Your task to perform on an android device: turn on priority inbox in the gmail app Image 0: 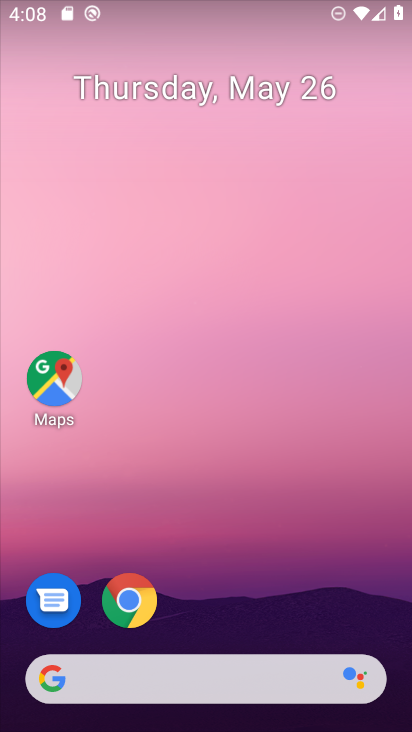
Step 0: drag from (247, 532) to (188, 3)
Your task to perform on an android device: turn on priority inbox in the gmail app Image 1: 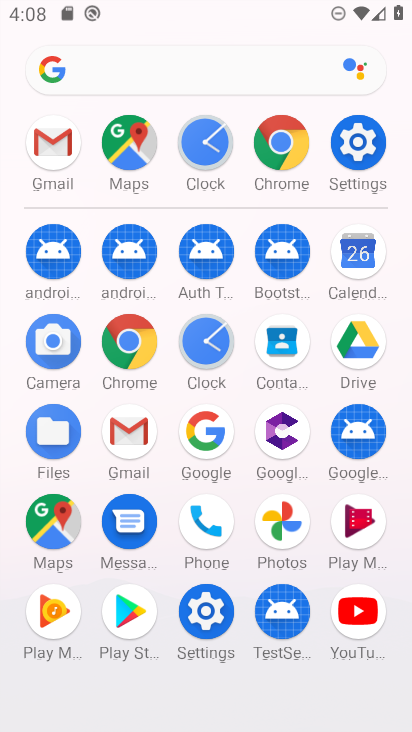
Step 1: drag from (19, 549) to (22, 251)
Your task to perform on an android device: turn on priority inbox in the gmail app Image 2: 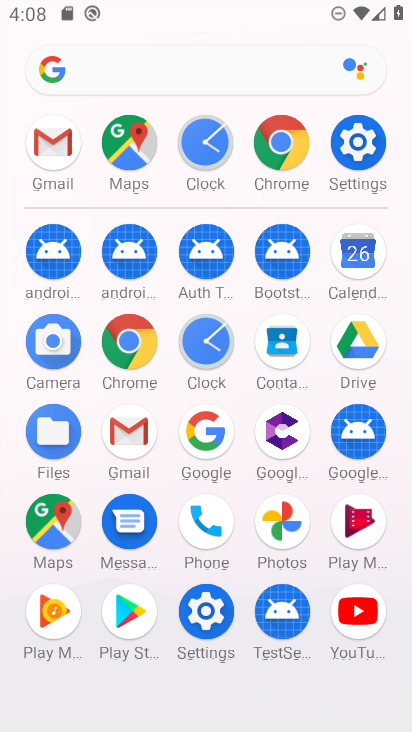
Step 2: click (130, 422)
Your task to perform on an android device: turn on priority inbox in the gmail app Image 3: 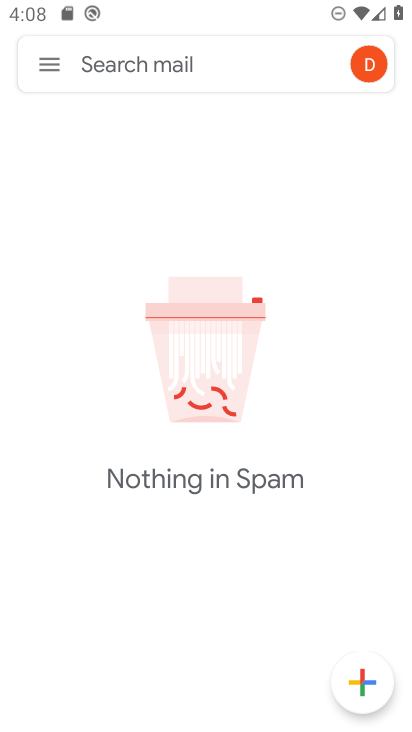
Step 3: click (66, 65)
Your task to perform on an android device: turn on priority inbox in the gmail app Image 4: 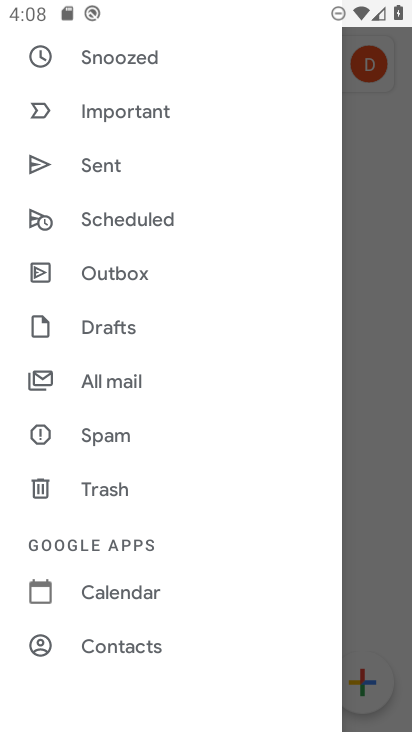
Step 4: drag from (189, 601) to (201, 198)
Your task to perform on an android device: turn on priority inbox in the gmail app Image 5: 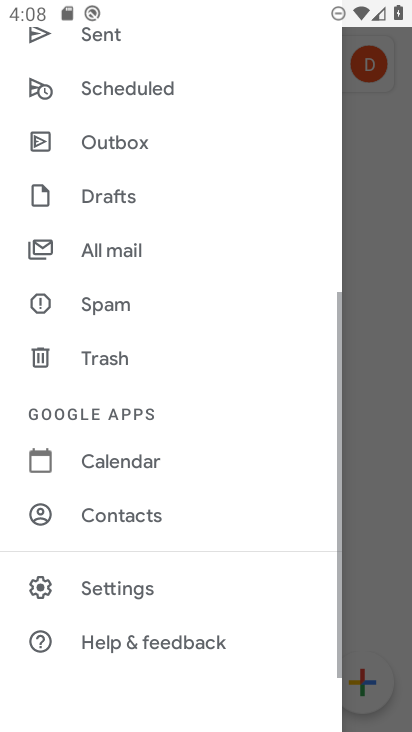
Step 5: click (138, 576)
Your task to perform on an android device: turn on priority inbox in the gmail app Image 6: 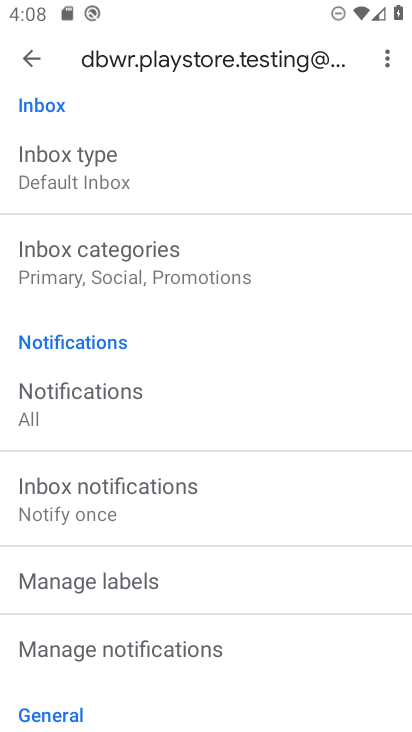
Step 6: drag from (190, 595) to (216, 182)
Your task to perform on an android device: turn on priority inbox in the gmail app Image 7: 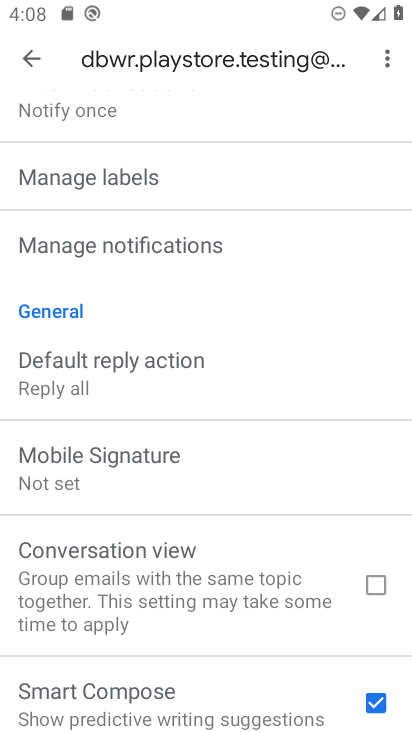
Step 7: click (169, 234)
Your task to perform on an android device: turn on priority inbox in the gmail app Image 8: 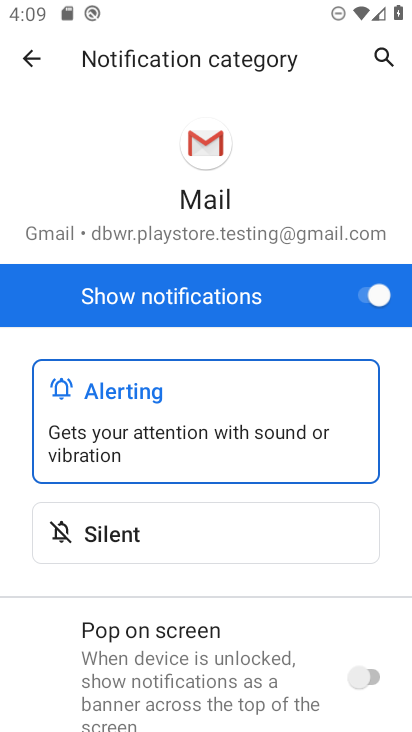
Step 8: drag from (237, 678) to (230, 205)
Your task to perform on an android device: turn on priority inbox in the gmail app Image 9: 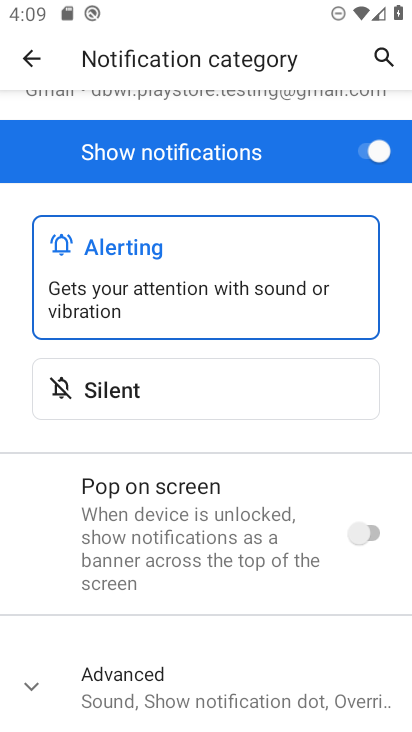
Step 9: click (125, 666)
Your task to perform on an android device: turn on priority inbox in the gmail app Image 10: 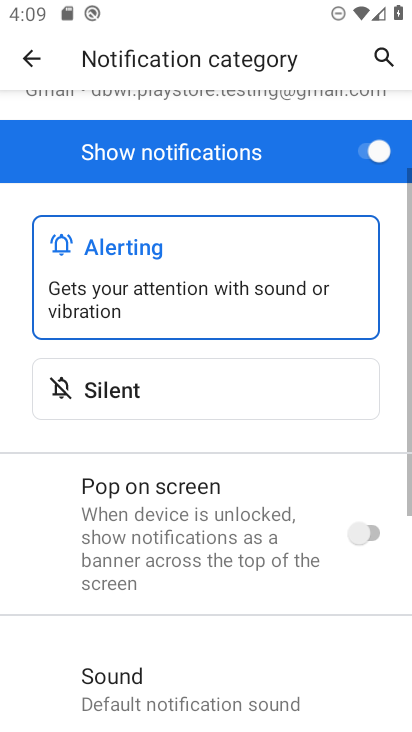
Step 10: drag from (254, 659) to (233, 228)
Your task to perform on an android device: turn on priority inbox in the gmail app Image 11: 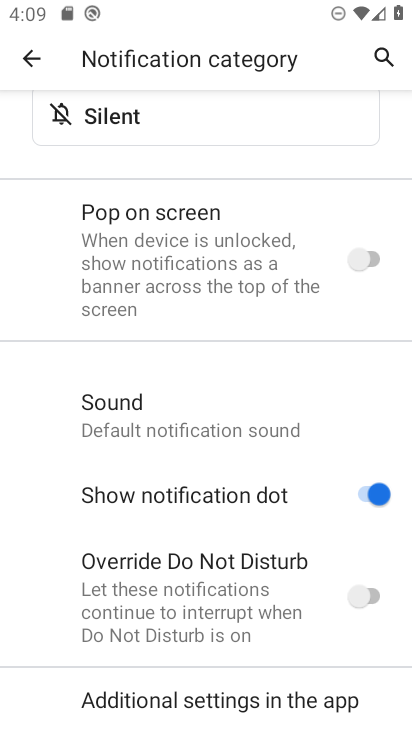
Step 11: drag from (234, 628) to (257, 171)
Your task to perform on an android device: turn on priority inbox in the gmail app Image 12: 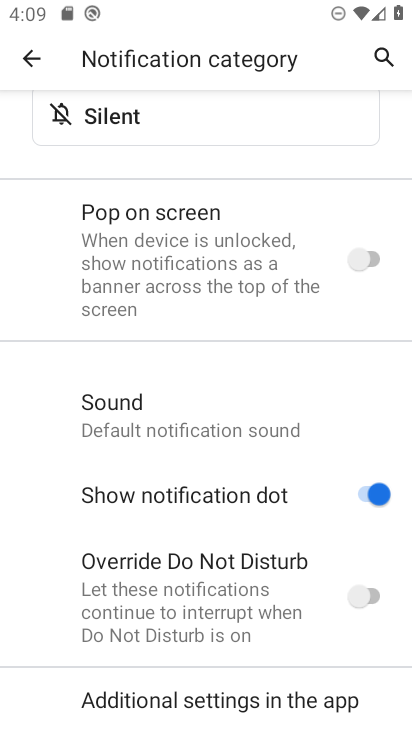
Step 12: drag from (225, 274) to (216, 666)
Your task to perform on an android device: turn on priority inbox in the gmail app Image 13: 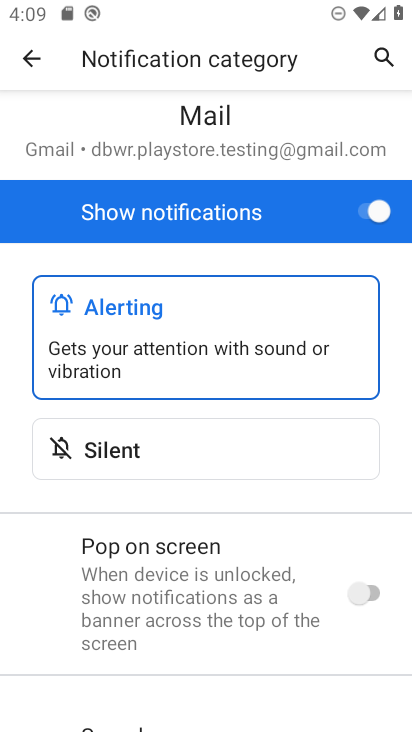
Step 13: drag from (218, 218) to (215, 631)
Your task to perform on an android device: turn on priority inbox in the gmail app Image 14: 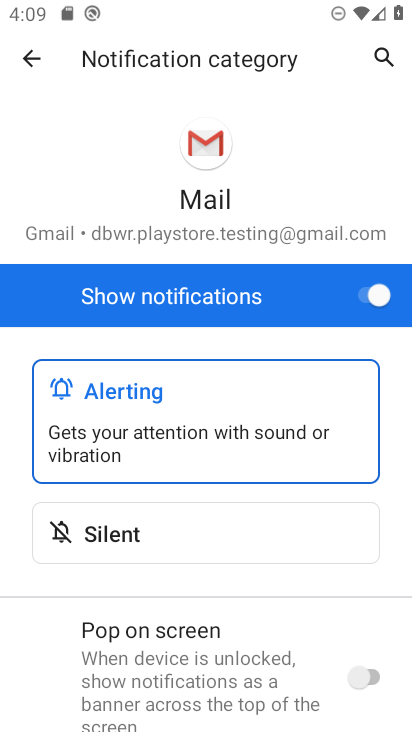
Step 14: drag from (242, 627) to (242, 211)
Your task to perform on an android device: turn on priority inbox in the gmail app Image 15: 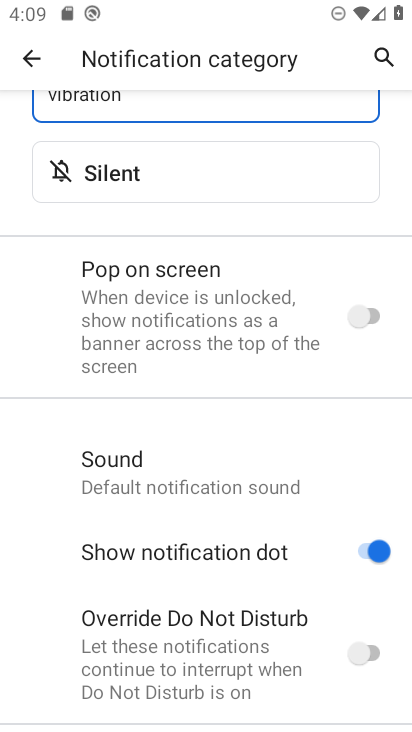
Step 15: drag from (250, 631) to (249, 317)
Your task to perform on an android device: turn on priority inbox in the gmail app Image 16: 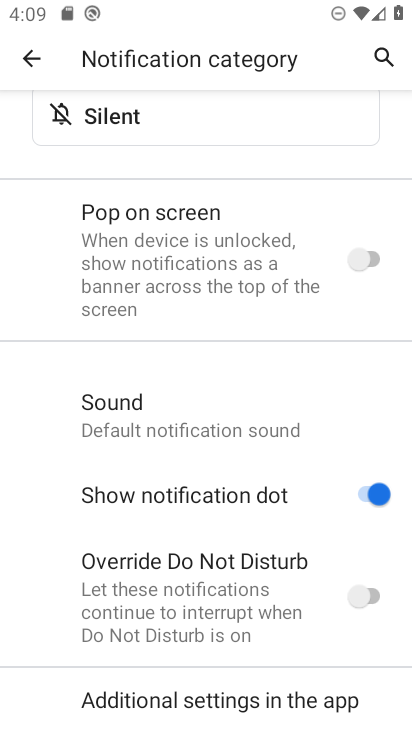
Step 16: drag from (223, 605) to (202, 279)
Your task to perform on an android device: turn on priority inbox in the gmail app Image 17: 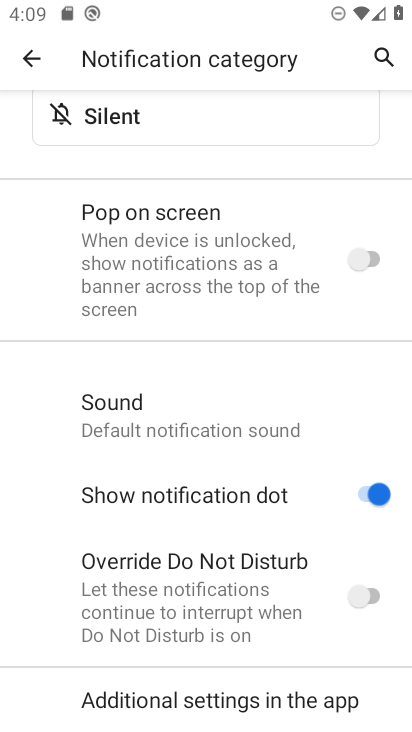
Step 17: drag from (248, 641) to (225, 274)
Your task to perform on an android device: turn on priority inbox in the gmail app Image 18: 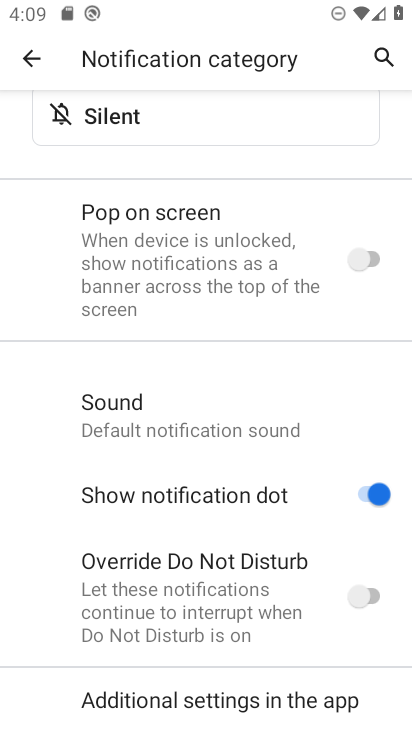
Step 18: drag from (216, 291) to (179, 711)
Your task to perform on an android device: turn on priority inbox in the gmail app Image 19: 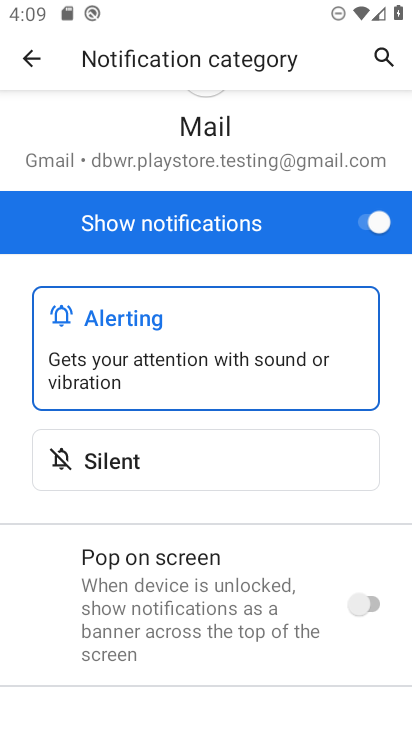
Step 19: drag from (245, 242) to (252, 651)
Your task to perform on an android device: turn on priority inbox in the gmail app Image 20: 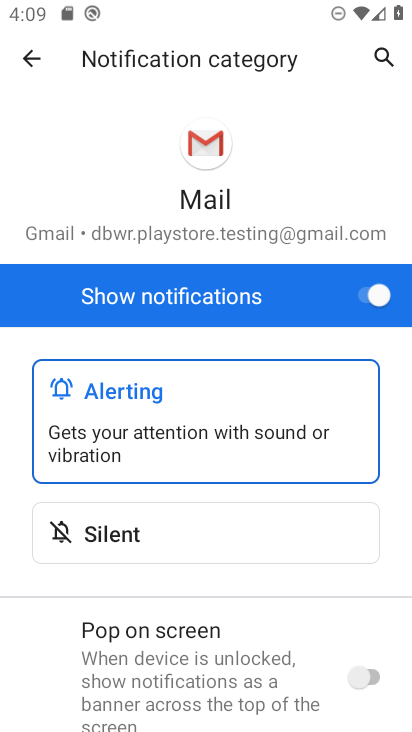
Step 20: click (33, 53)
Your task to perform on an android device: turn on priority inbox in the gmail app Image 21: 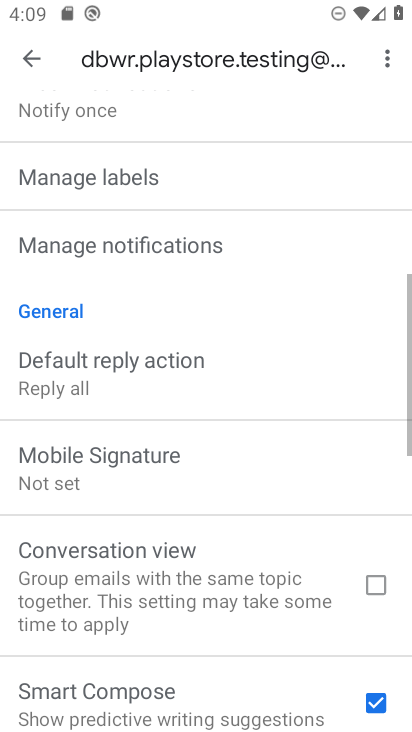
Step 21: drag from (223, 220) to (289, 615)
Your task to perform on an android device: turn on priority inbox in the gmail app Image 22: 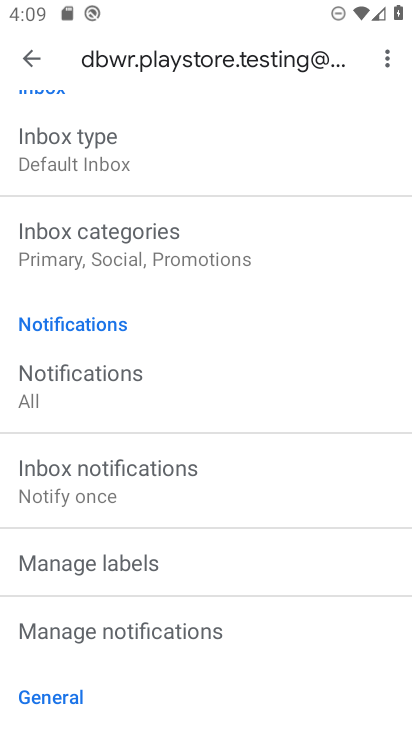
Step 22: click (151, 152)
Your task to perform on an android device: turn on priority inbox in the gmail app Image 23: 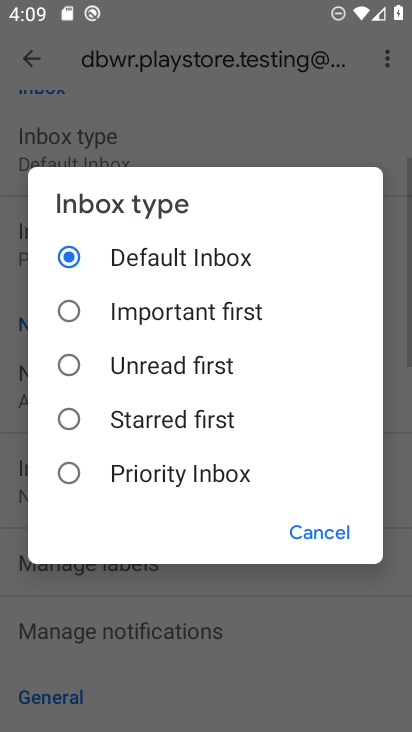
Step 23: click (174, 479)
Your task to perform on an android device: turn on priority inbox in the gmail app Image 24: 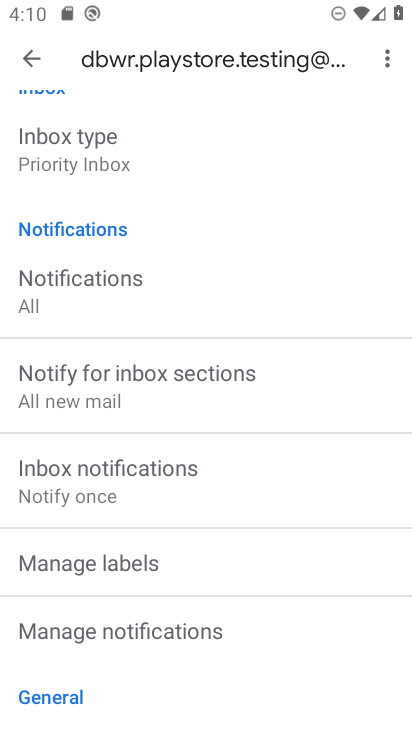
Step 24: task complete